Your task to perform on an android device: Go to Google Image 0: 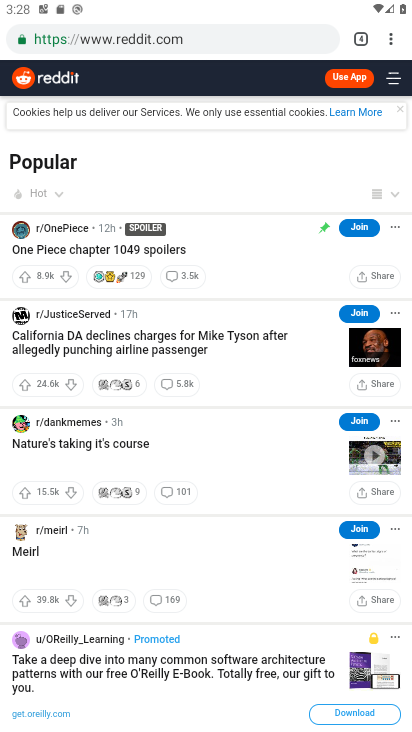
Step 0: press home button
Your task to perform on an android device: Go to Google Image 1: 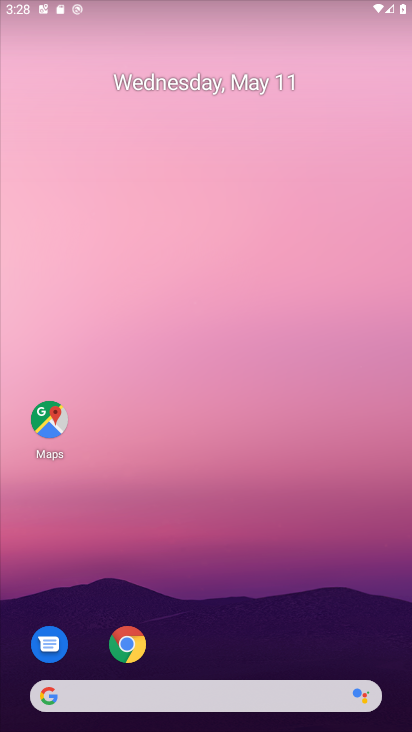
Step 1: click (169, 698)
Your task to perform on an android device: Go to Google Image 2: 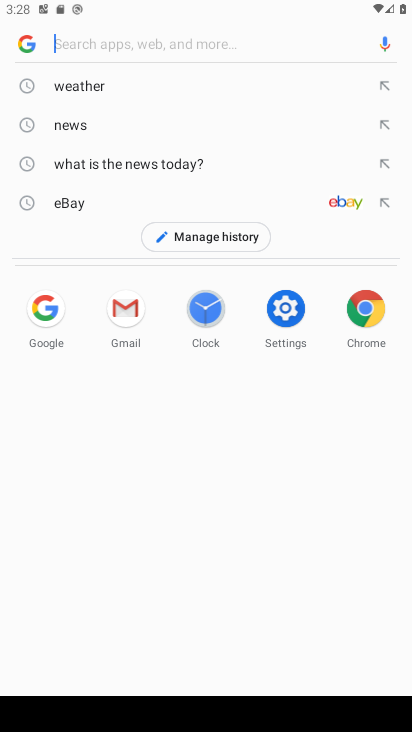
Step 2: task complete